Your task to perform on an android device: What's on my calendar tomorrow? Image 0: 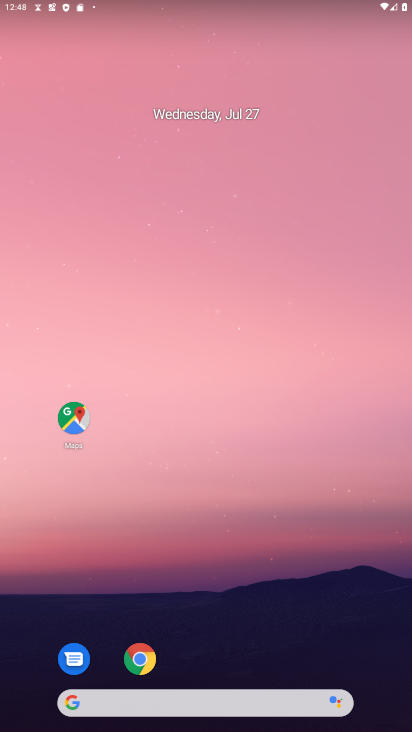
Step 0: drag from (218, 668) to (253, 2)
Your task to perform on an android device: What's on my calendar tomorrow? Image 1: 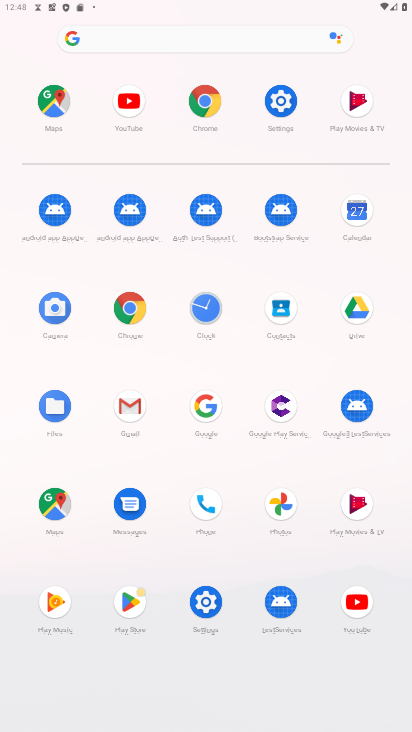
Step 1: click (359, 202)
Your task to perform on an android device: What's on my calendar tomorrow? Image 2: 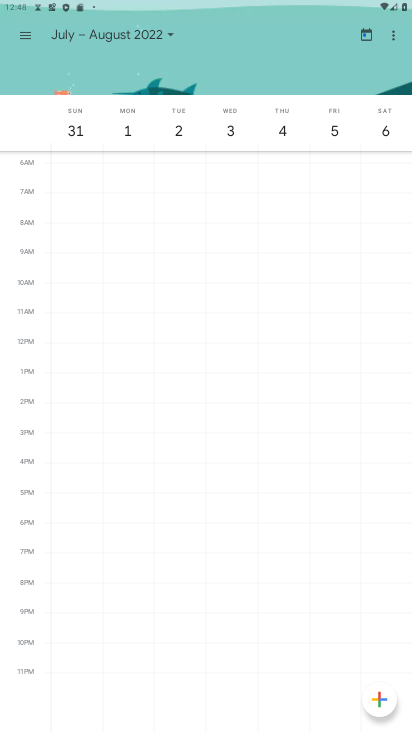
Step 2: drag from (85, 131) to (409, 152)
Your task to perform on an android device: What's on my calendar tomorrow? Image 3: 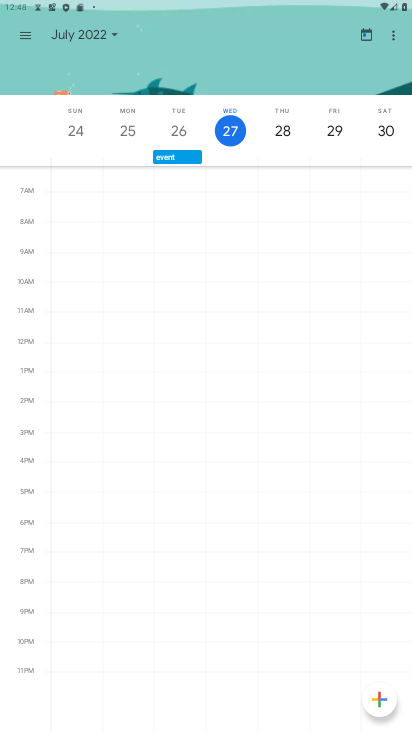
Step 3: click (279, 128)
Your task to perform on an android device: What's on my calendar tomorrow? Image 4: 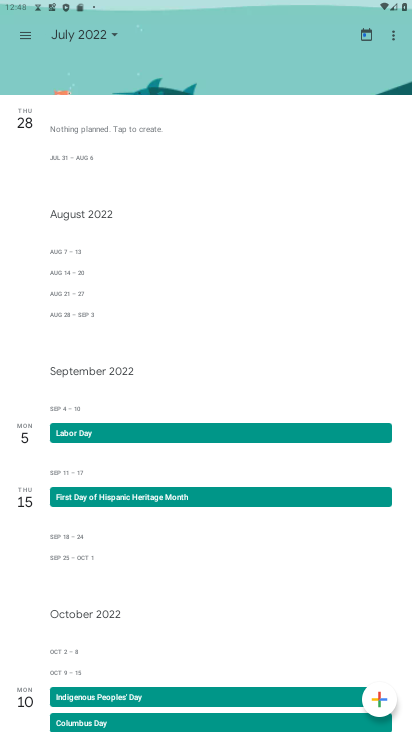
Step 4: click (111, 29)
Your task to perform on an android device: What's on my calendar tomorrow? Image 5: 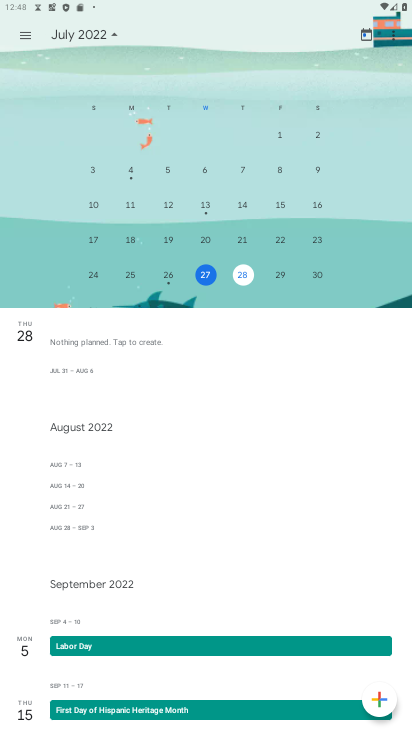
Step 5: click (34, 341)
Your task to perform on an android device: What's on my calendar tomorrow? Image 6: 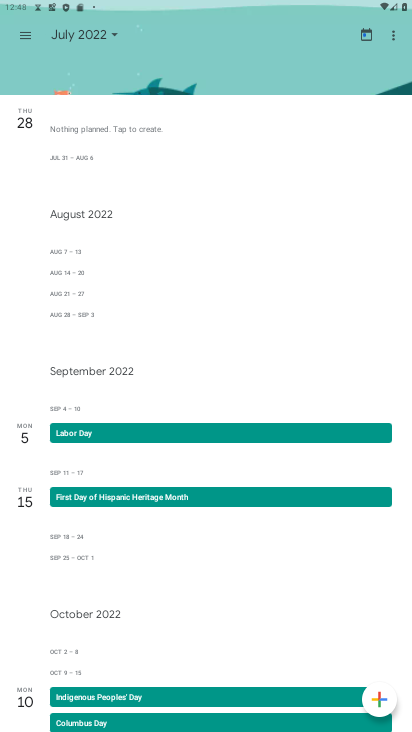
Step 6: click (38, 111)
Your task to perform on an android device: What's on my calendar tomorrow? Image 7: 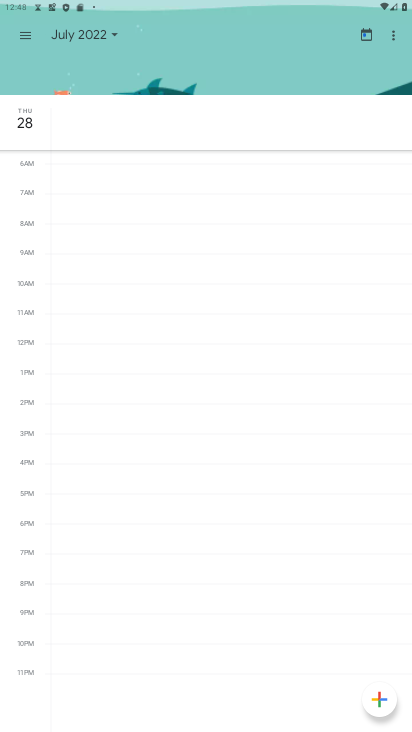
Step 7: task complete